Your task to perform on an android device: Go to accessibility settings Image 0: 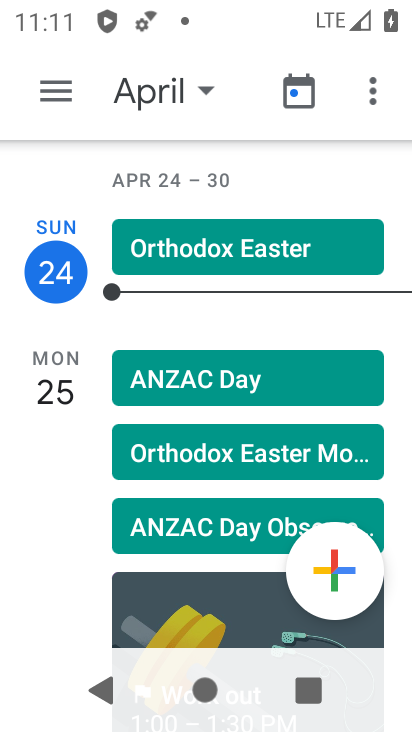
Step 0: press home button
Your task to perform on an android device: Go to accessibility settings Image 1: 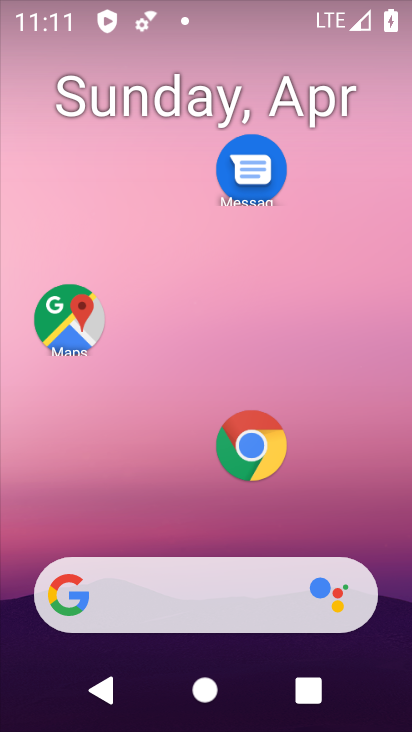
Step 1: drag from (170, 616) to (264, 113)
Your task to perform on an android device: Go to accessibility settings Image 2: 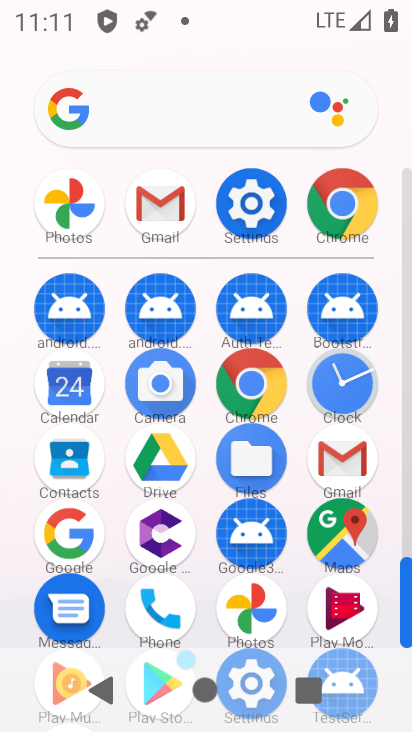
Step 2: click (246, 215)
Your task to perform on an android device: Go to accessibility settings Image 3: 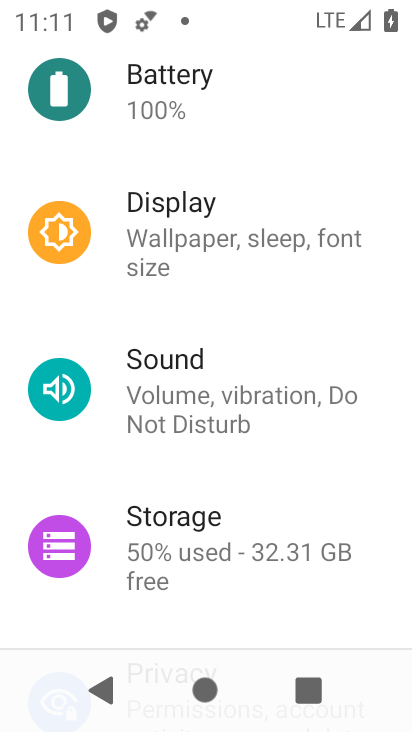
Step 3: drag from (178, 584) to (334, 130)
Your task to perform on an android device: Go to accessibility settings Image 4: 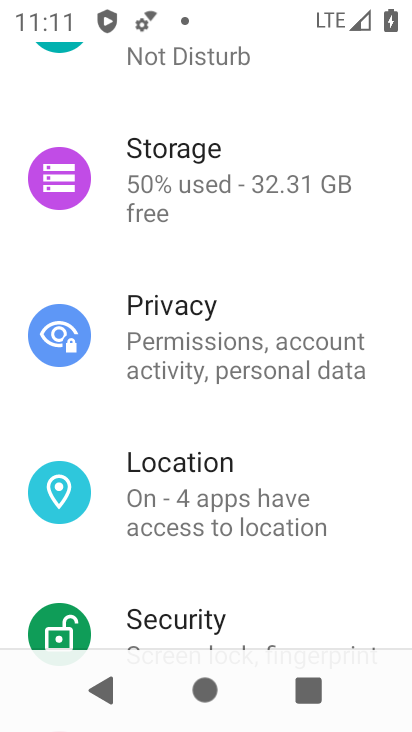
Step 4: drag from (242, 340) to (336, 21)
Your task to perform on an android device: Go to accessibility settings Image 5: 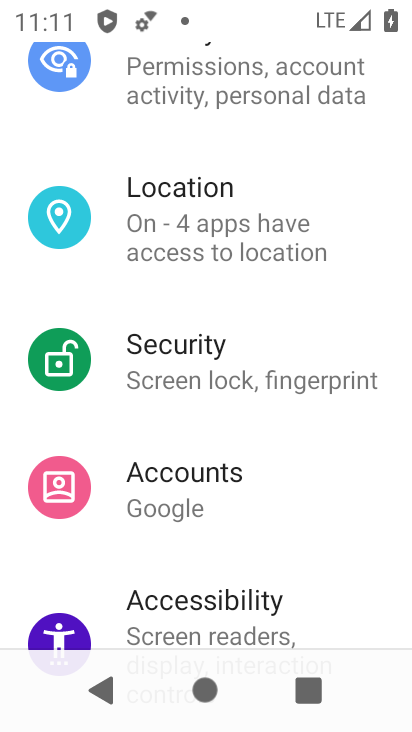
Step 5: click (185, 586)
Your task to perform on an android device: Go to accessibility settings Image 6: 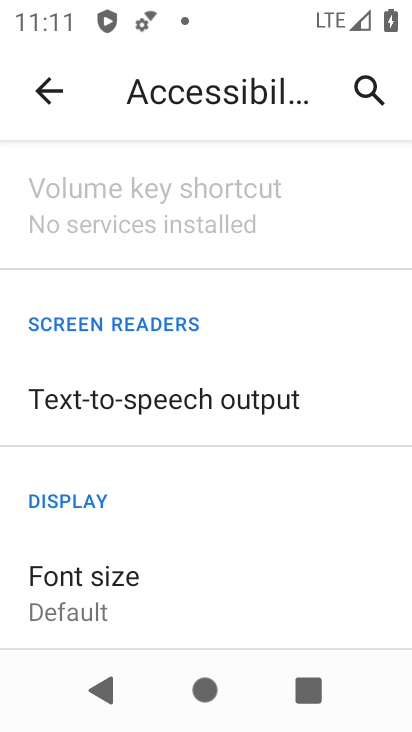
Step 6: task complete